Your task to perform on an android device: open sync settings in chrome Image 0: 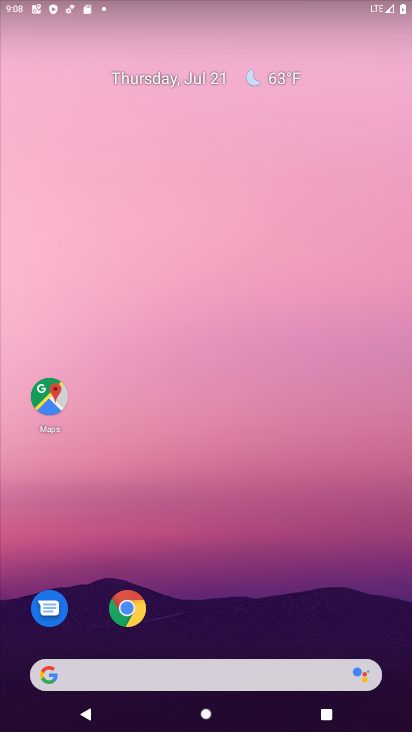
Step 0: drag from (283, 659) to (334, 349)
Your task to perform on an android device: open sync settings in chrome Image 1: 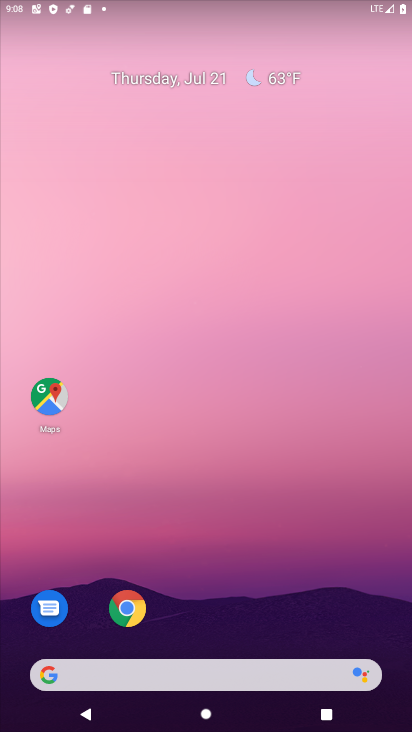
Step 1: drag from (234, 572) to (295, 146)
Your task to perform on an android device: open sync settings in chrome Image 2: 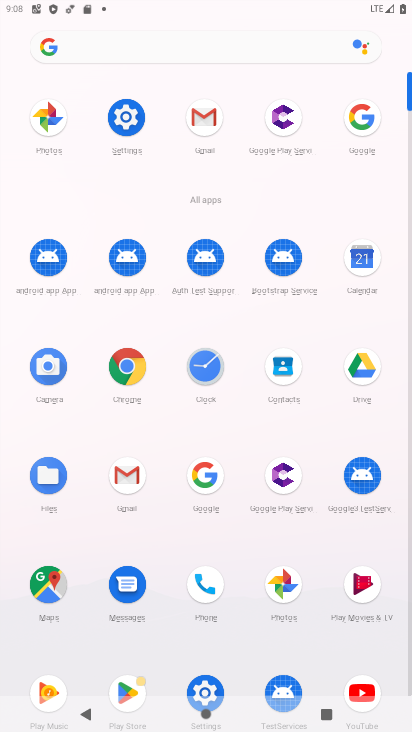
Step 2: click (128, 374)
Your task to perform on an android device: open sync settings in chrome Image 3: 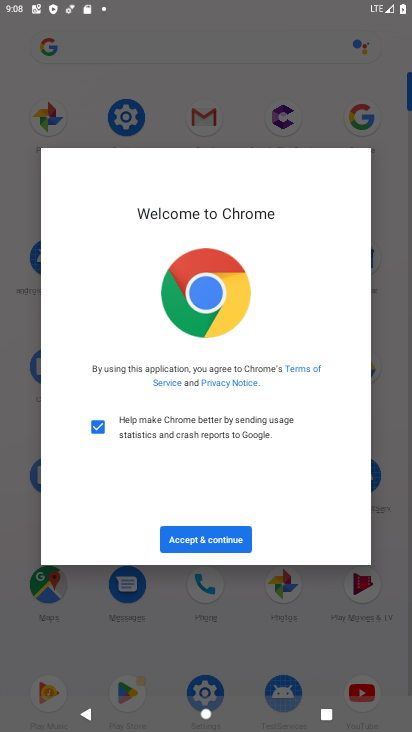
Step 3: click (224, 540)
Your task to perform on an android device: open sync settings in chrome Image 4: 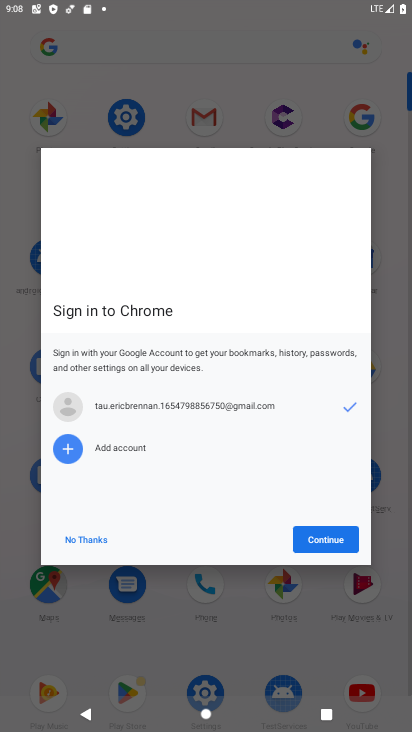
Step 4: click (319, 539)
Your task to perform on an android device: open sync settings in chrome Image 5: 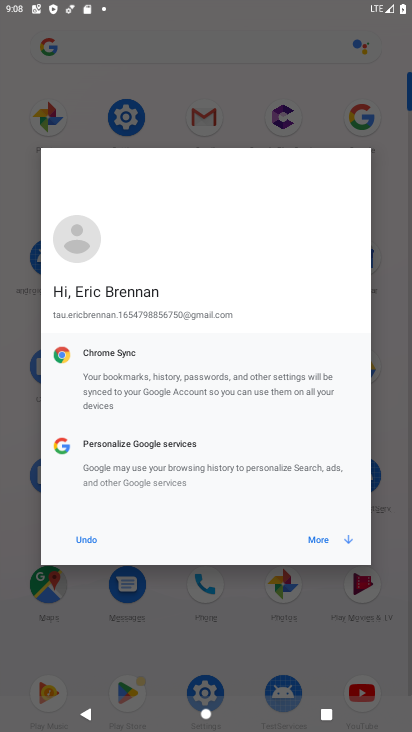
Step 5: click (331, 542)
Your task to perform on an android device: open sync settings in chrome Image 6: 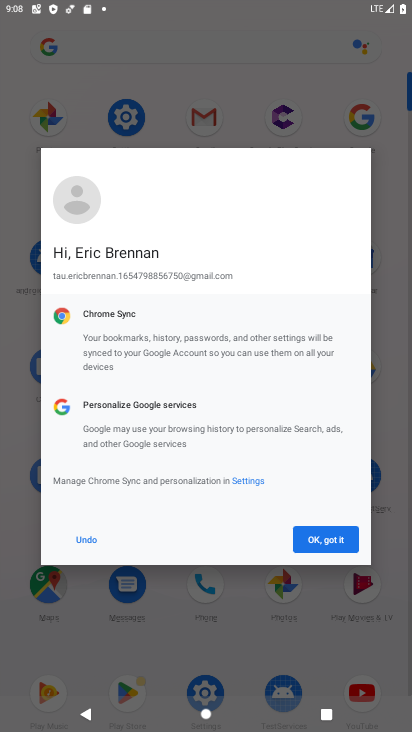
Step 6: click (331, 542)
Your task to perform on an android device: open sync settings in chrome Image 7: 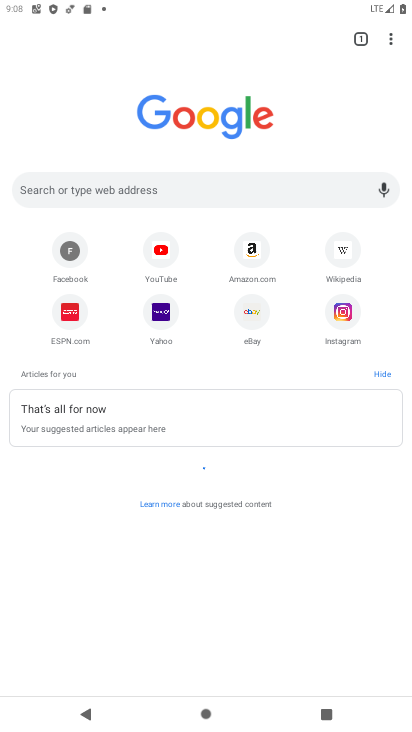
Step 7: click (392, 47)
Your task to perform on an android device: open sync settings in chrome Image 8: 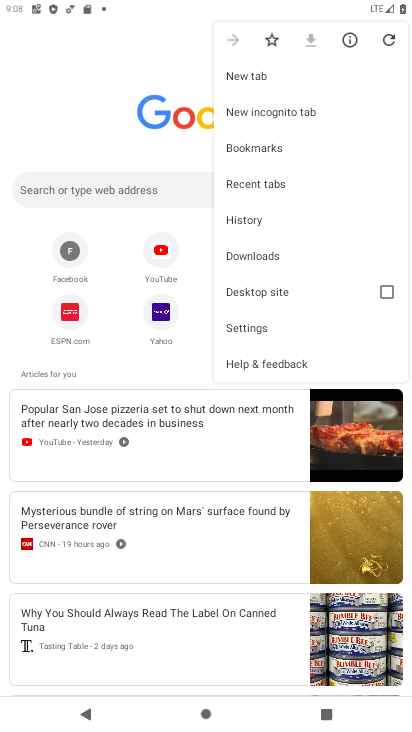
Step 8: click (239, 325)
Your task to perform on an android device: open sync settings in chrome Image 9: 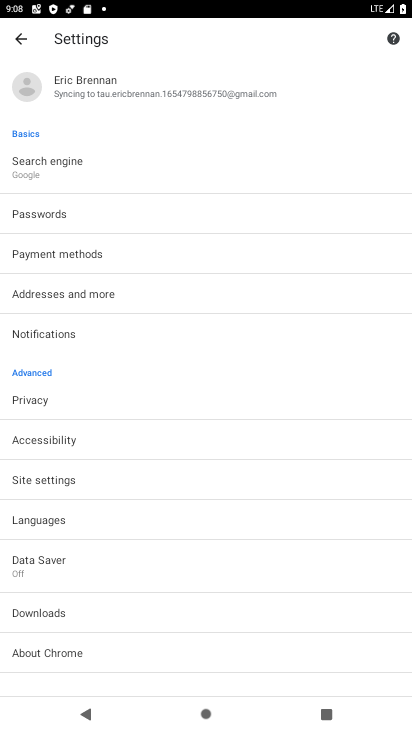
Step 9: click (159, 90)
Your task to perform on an android device: open sync settings in chrome Image 10: 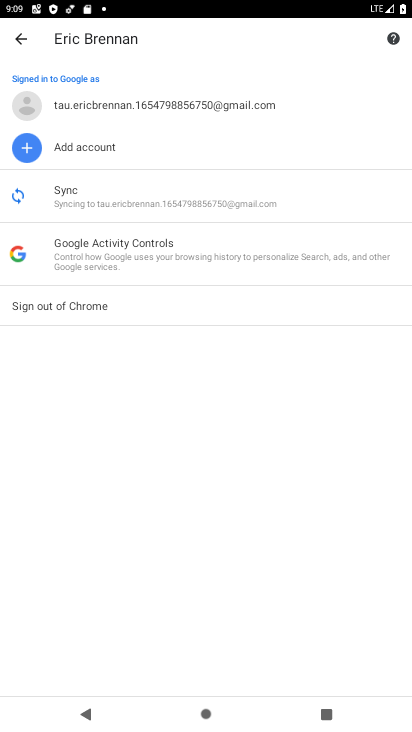
Step 10: click (97, 205)
Your task to perform on an android device: open sync settings in chrome Image 11: 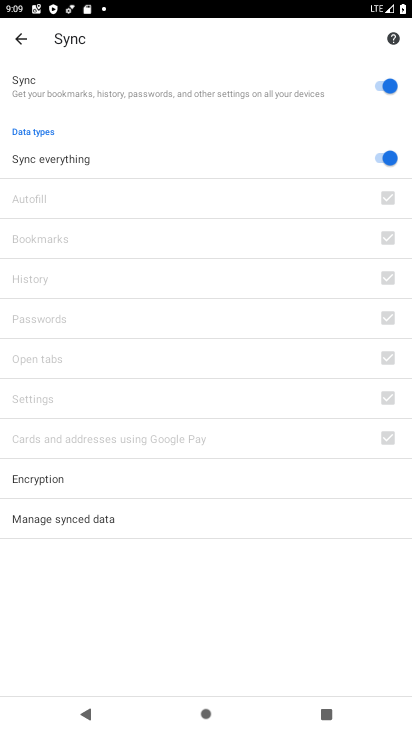
Step 11: task complete